Your task to perform on an android device: Open Android settings Image 0: 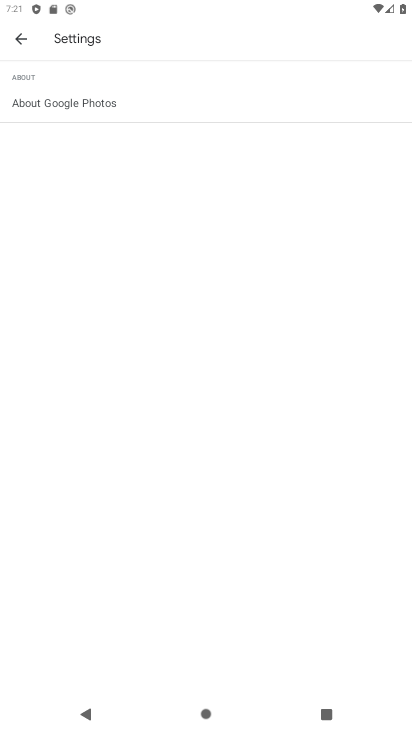
Step 0: press home button
Your task to perform on an android device: Open Android settings Image 1: 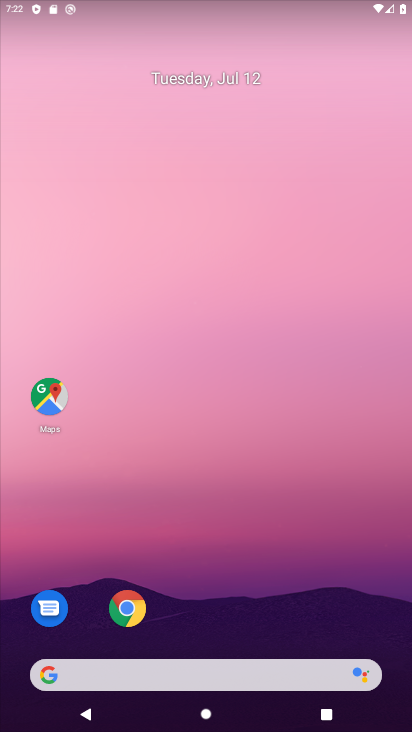
Step 1: drag from (178, 588) to (177, 64)
Your task to perform on an android device: Open Android settings Image 2: 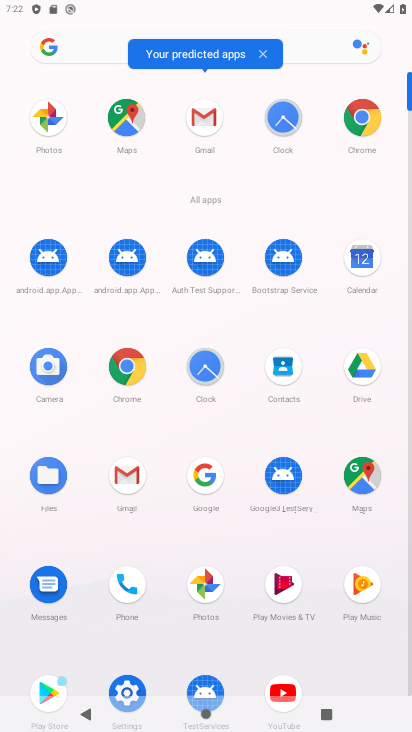
Step 2: click (124, 685)
Your task to perform on an android device: Open Android settings Image 3: 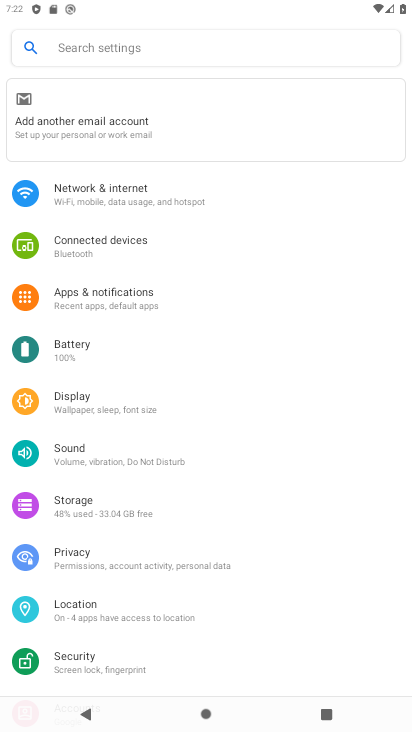
Step 3: drag from (88, 421) to (104, 304)
Your task to perform on an android device: Open Android settings Image 4: 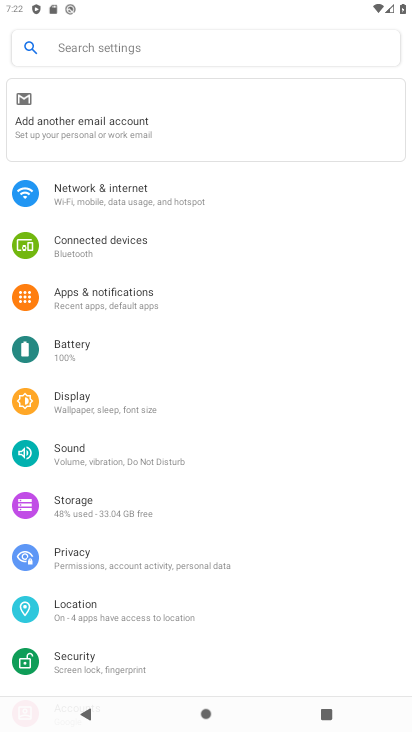
Step 4: drag from (113, 468) to (113, 321)
Your task to perform on an android device: Open Android settings Image 5: 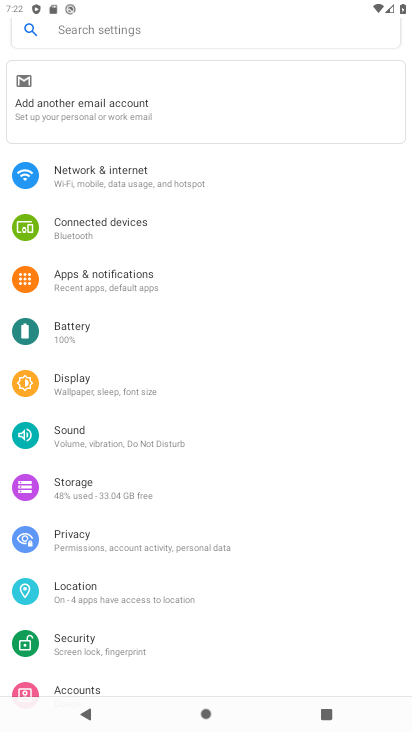
Step 5: drag from (124, 539) to (124, 238)
Your task to perform on an android device: Open Android settings Image 6: 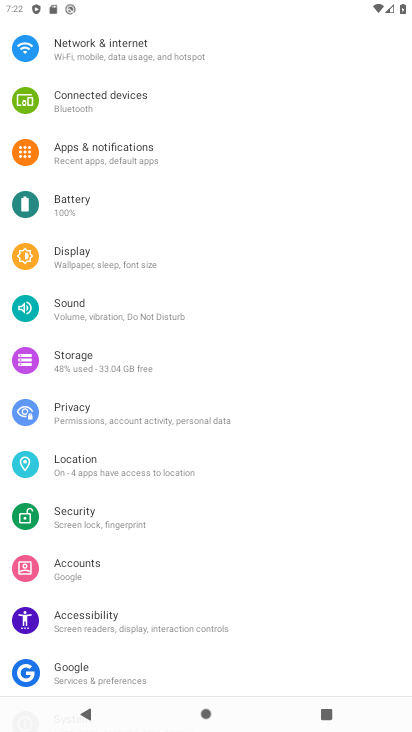
Step 6: drag from (103, 589) to (116, 315)
Your task to perform on an android device: Open Android settings Image 7: 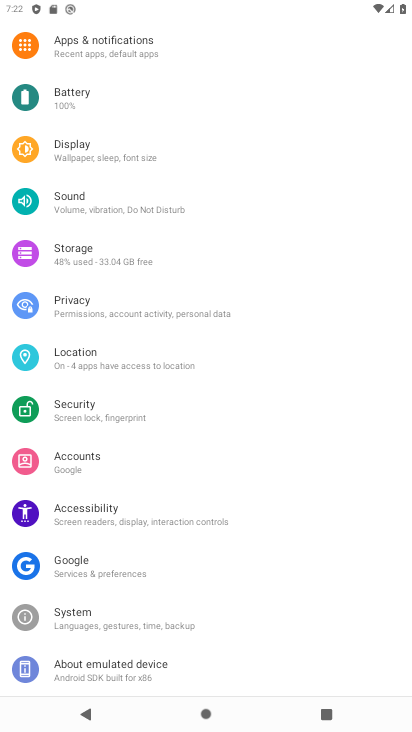
Step 7: click (111, 666)
Your task to perform on an android device: Open Android settings Image 8: 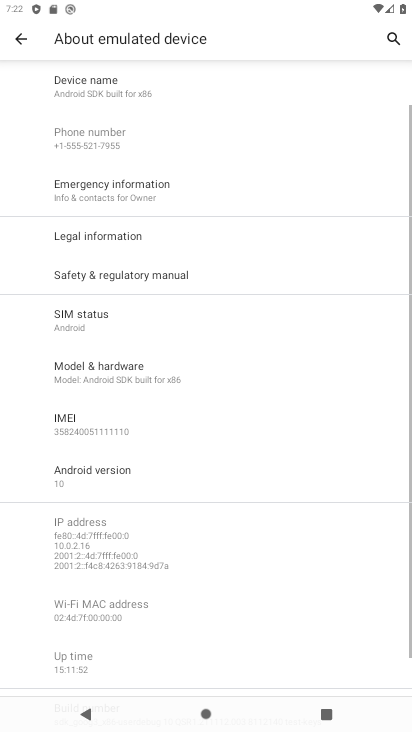
Step 8: click (83, 483)
Your task to perform on an android device: Open Android settings Image 9: 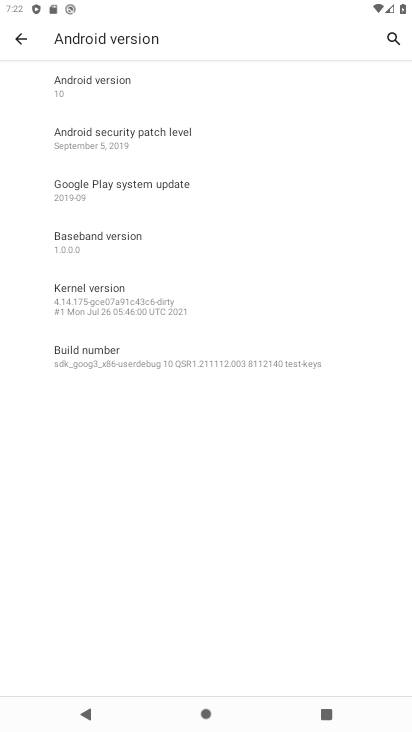
Step 9: task complete